Your task to perform on an android device: Open notification settings Image 0: 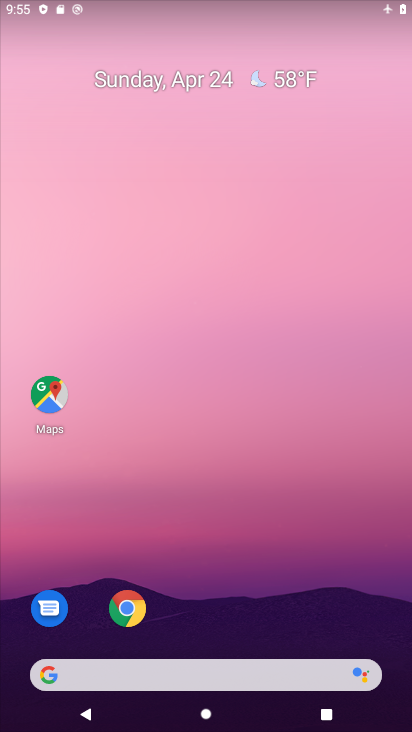
Step 0: drag from (281, 536) to (292, 0)
Your task to perform on an android device: Open notification settings Image 1: 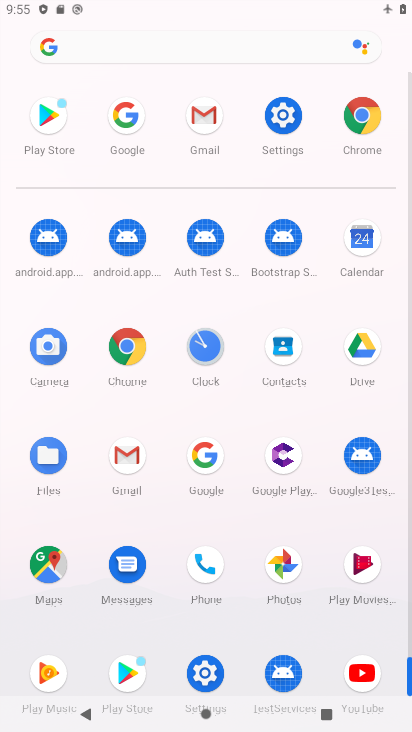
Step 1: click (291, 117)
Your task to perform on an android device: Open notification settings Image 2: 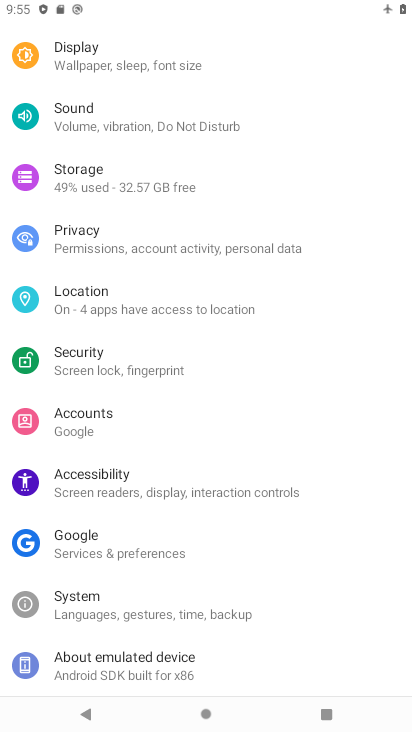
Step 2: drag from (181, 356) to (178, 646)
Your task to perform on an android device: Open notification settings Image 3: 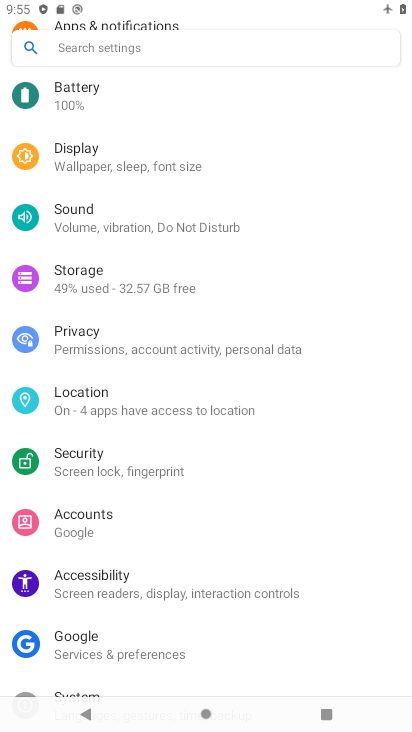
Step 3: drag from (156, 343) to (127, 602)
Your task to perform on an android device: Open notification settings Image 4: 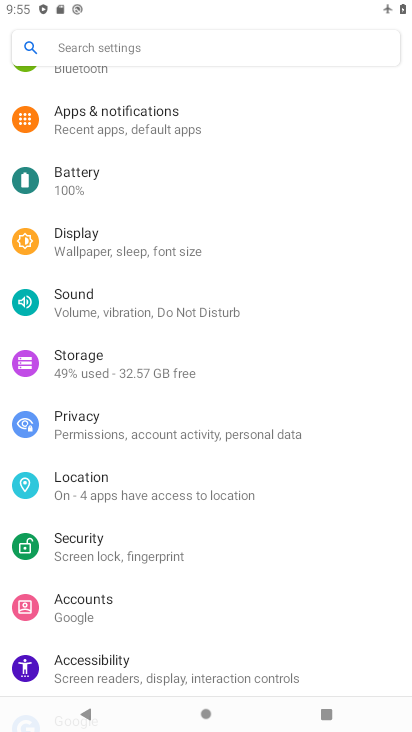
Step 4: click (133, 133)
Your task to perform on an android device: Open notification settings Image 5: 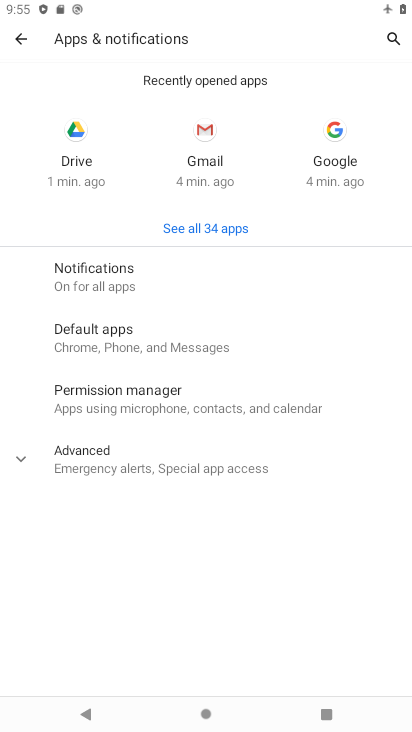
Step 5: click (85, 265)
Your task to perform on an android device: Open notification settings Image 6: 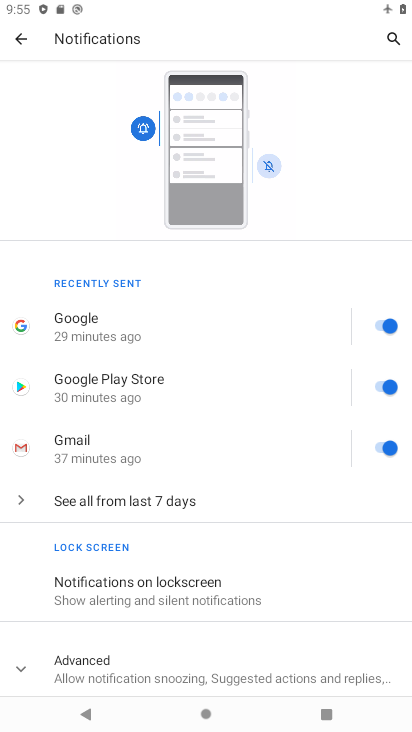
Step 6: drag from (120, 578) to (149, 168)
Your task to perform on an android device: Open notification settings Image 7: 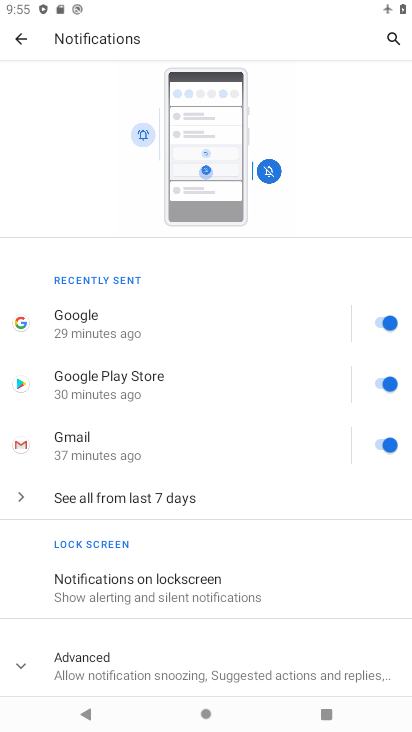
Step 7: click (201, 576)
Your task to perform on an android device: Open notification settings Image 8: 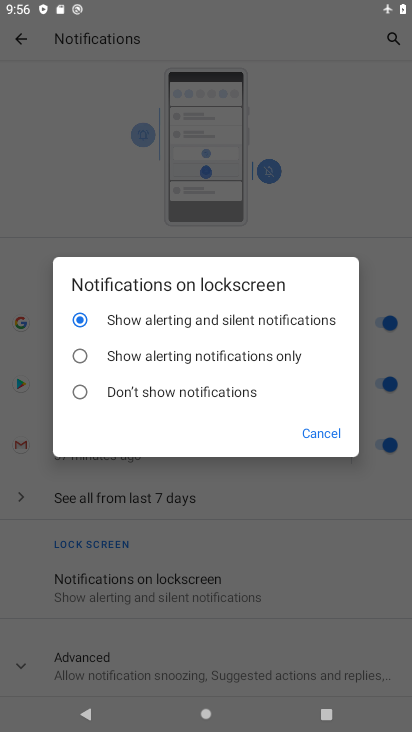
Step 8: click (81, 357)
Your task to perform on an android device: Open notification settings Image 9: 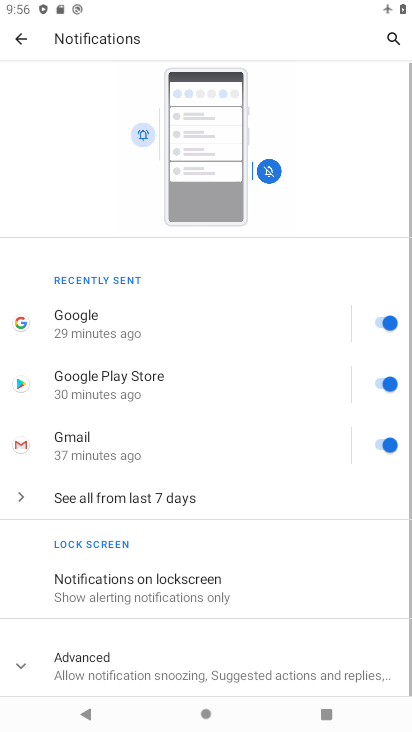
Step 9: task complete